Your task to perform on an android device: turn on showing notifications on the lock screen Image 0: 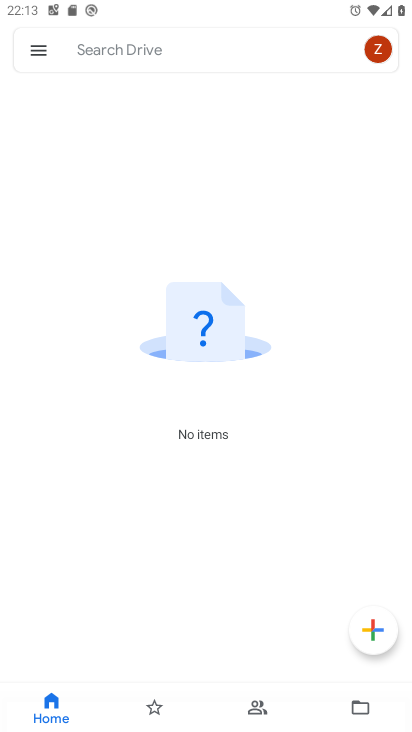
Step 0: press home button
Your task to perform on an android device: turn on showing notifications on the lock screen Image 1: 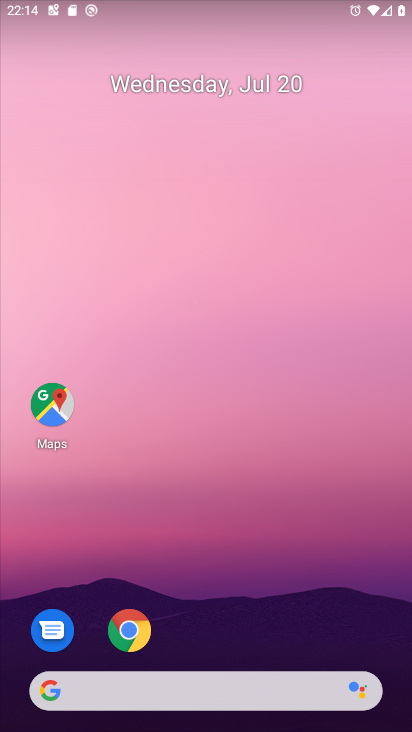
Step 1: drag from (163, 681) to (189, 280)
Your task to perform on an android device: turn on showing notifications on the lock screen Image 2: 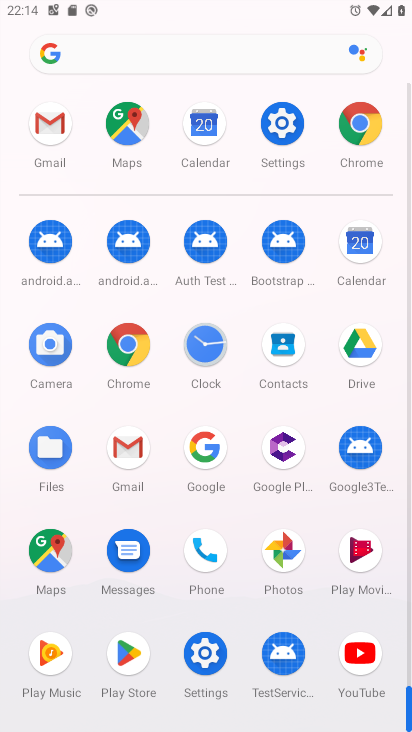
Step 2: click (198, 636)
Your task to perform on an android device: turn on showing notifications on the lock screen Image 3: 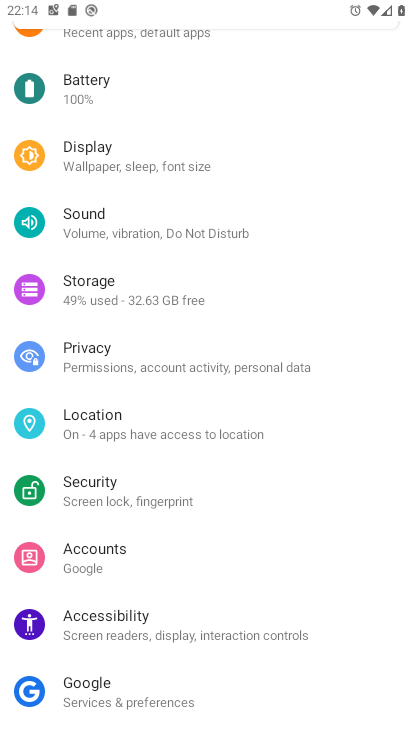
Step 3: drag from (125, 87) to (103, 377)
Your task to perform on an android device: turn on showing notifications on the lock screen Image 4: 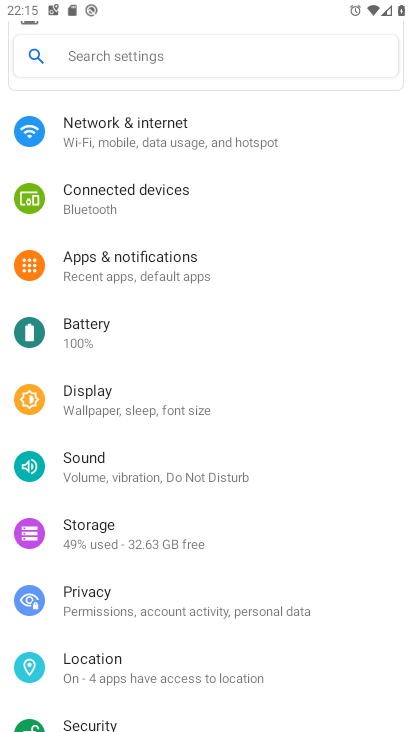
Step 4: click (125, 274)
Your task to perform on an android device: turn on showing notifications on the lock screen Image 5: 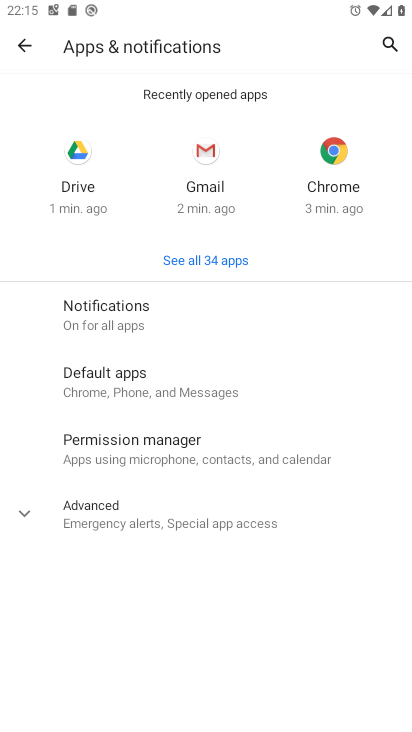
Step 5: click (151, 317)
Your task to perform on an android device: turn on showing notifications on the lock screen Image 6: 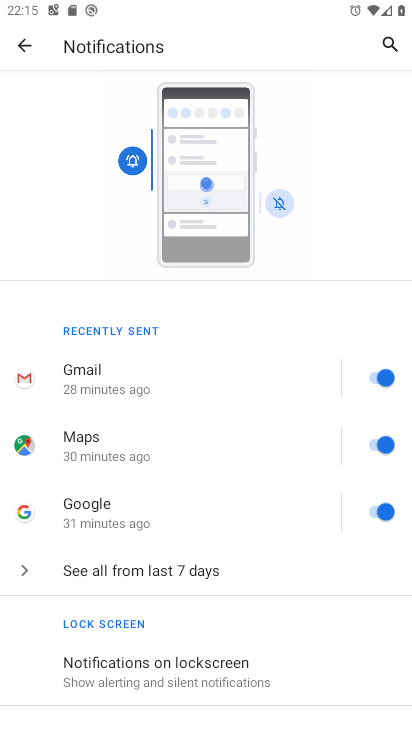
Step 6: click (130, 649)
Your task to perform on an android device: turn on showing notifications on the lock screen Image 7: 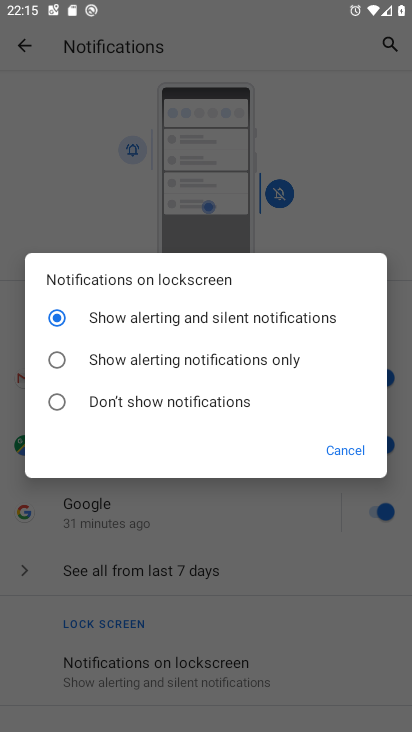
Step 7: click (290, 323)
Your task to perform on an android device: turn on showing notifications on the lock screen Image 8: 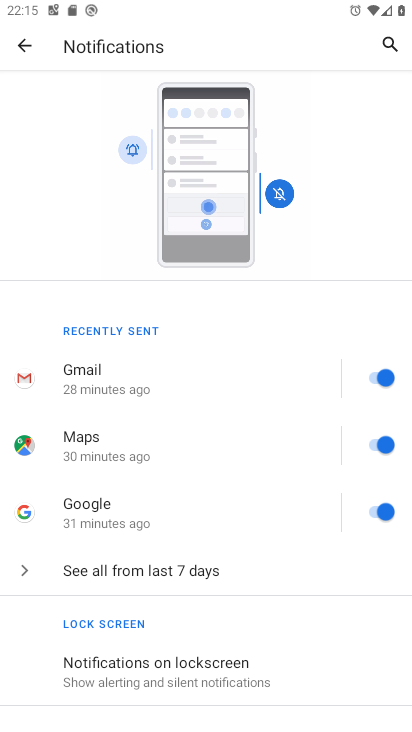
Step 8: task complete